Your task to perform on an android device: What's the weather today? Image 0: 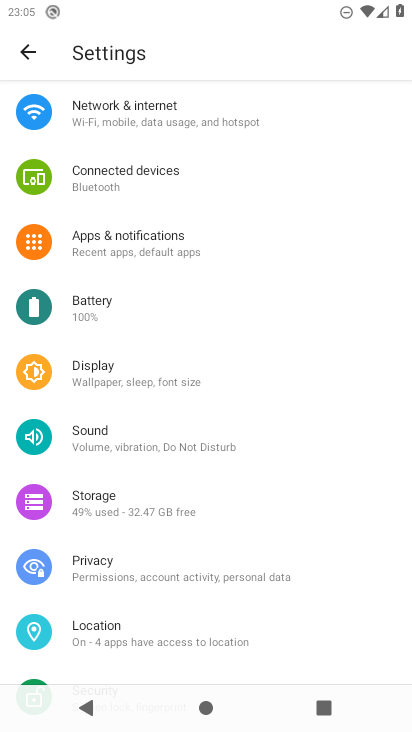
Step 0: press home button
Your task to perform on an android device: What's the weather today? Image 1: 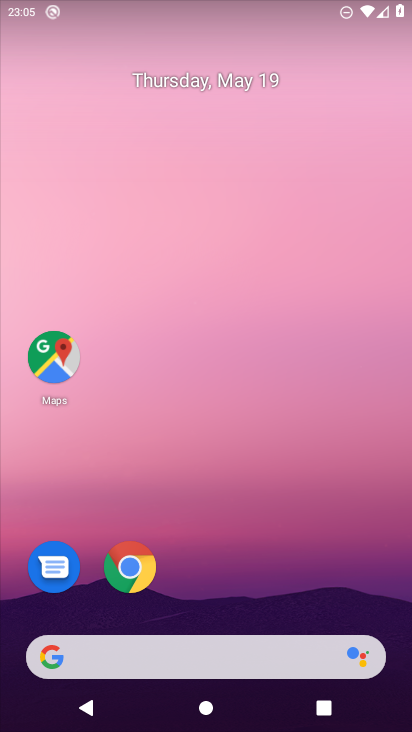
Step 1: drag from (18, 252) to (399, 265)
Your task to perform on an android device: What's the weather today? Image 2: 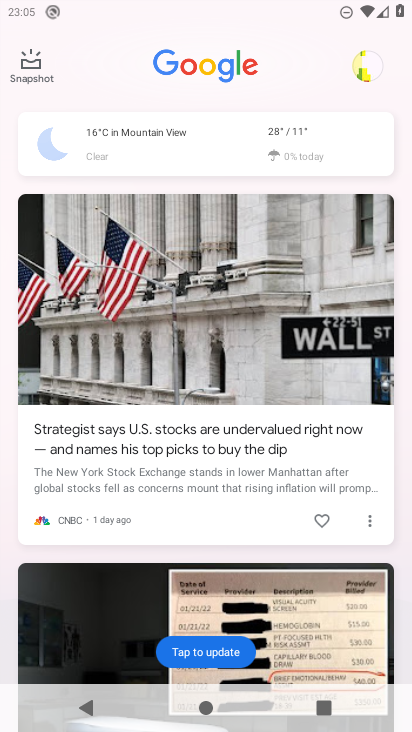
Step 2: click (316, 140)
Your task to perform on an android device: What's the weather today? Image 3: 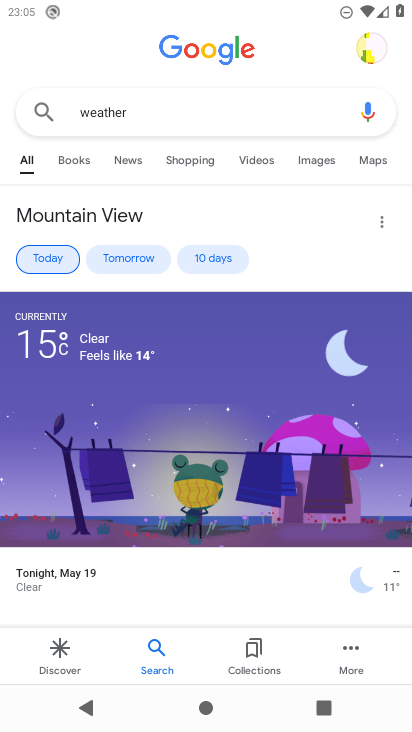
Step 3: drag from (203, 560) to (202, 240)
Your task to perform on an android device: What's the weather today? Image 4: 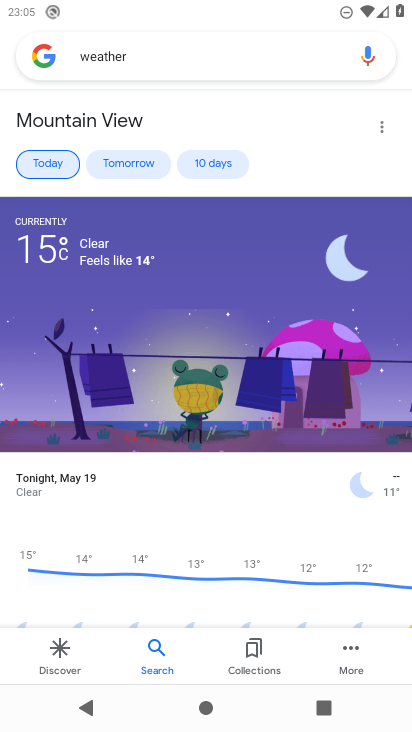
Step 4: click (208, 201)
Your task to perform on an android device: What's the weather today? Image 5: 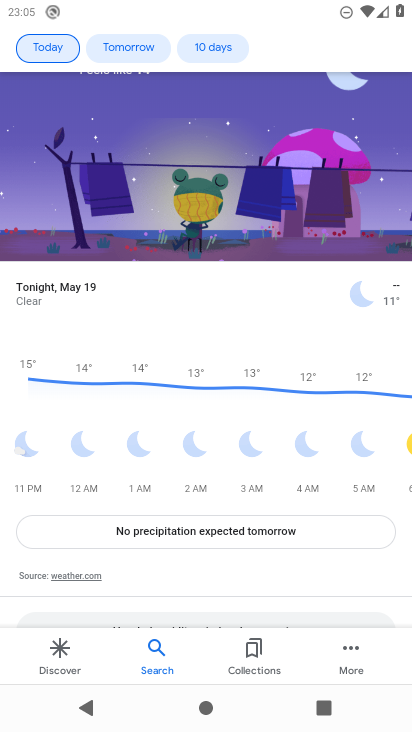
Step 5: drag from (323, 440) to (60, 443)
Your task to perform on an android device: What's the weather today? Image 6: 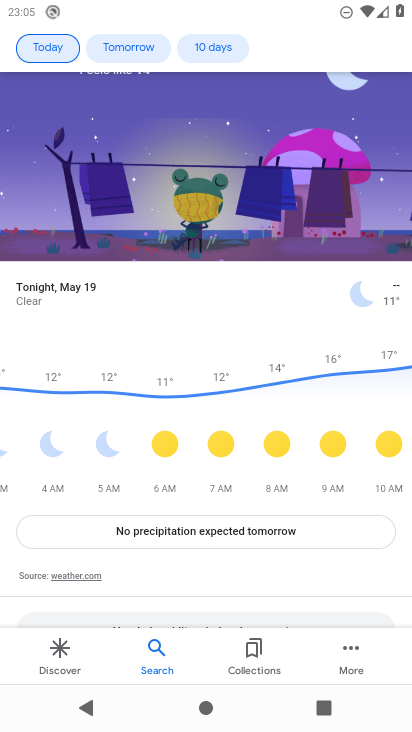
Step 6: drag from (378, 441) to (88, 449)
Your task to perform on an android device: What's the weather today? Image 7: 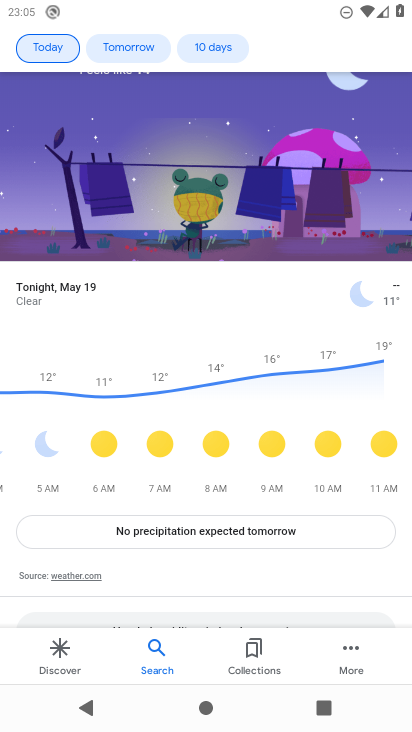
Step 7: click (64, 452)
Your task to perform on an android device: What's the weather today? Image 8: 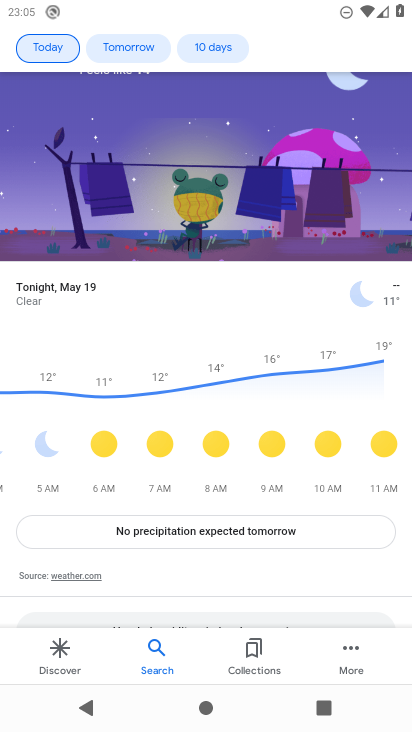
Step 8: task complete